Your task to perform on an android device: turn off smart reply in the gmail app Image 0: 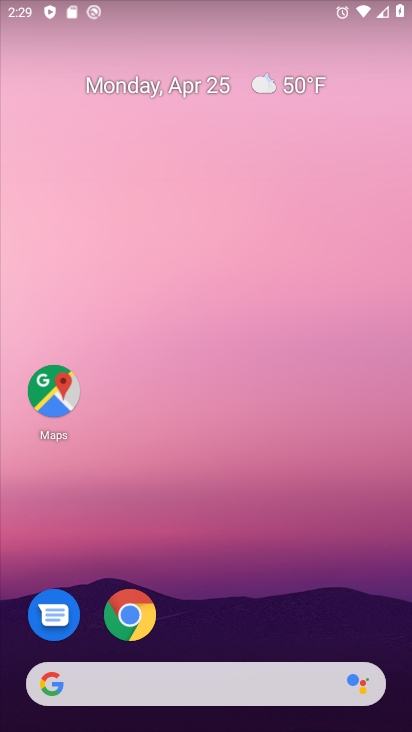
Step 0: drag from (219, 578) to (200, 42)
Your task to perform on an android device: turn off smart reply in the gmail app Image 1: 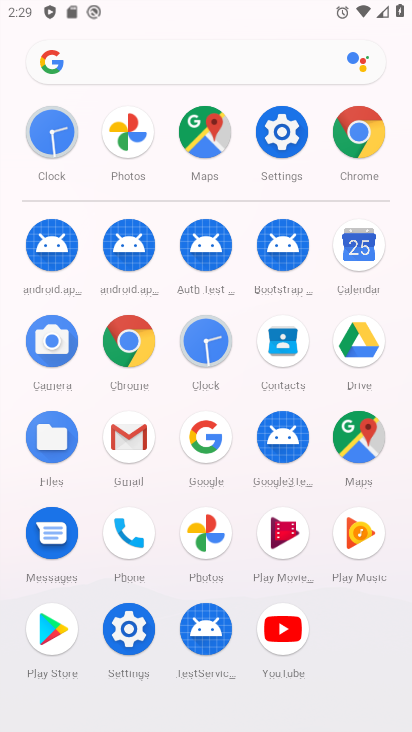
Step 1: click (126, 438)
Your task to perform on an android device: turn off smart reply in the gmail app Image 2: 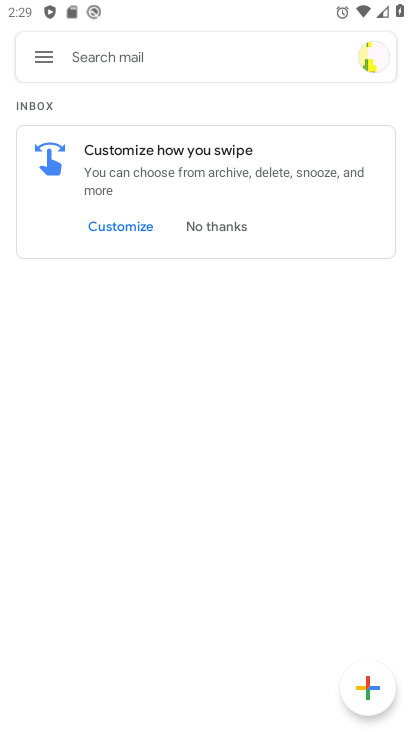
Step 2: click (44, 59)
Your task to perform on an android device: turn off smart reply in the gmail app Image 3: 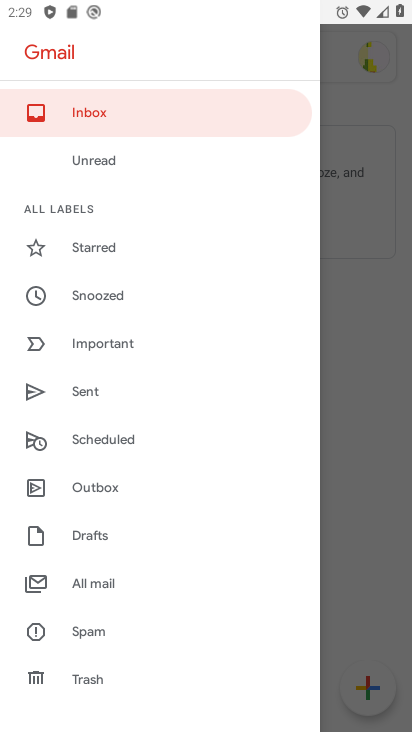
Step 3: drag from (144, 504) to (164, 421)
Your task to perform on an android device: turn off smart reply in the gmail app Image 4: 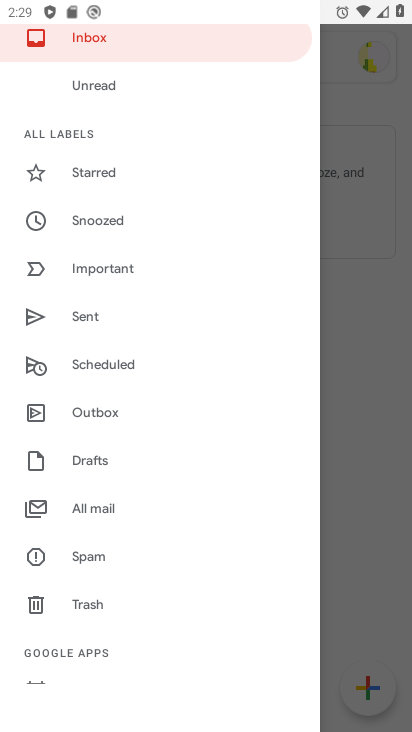
Step 4: drag from (127, 547) to (139, 457)
Your task to perform on an android device: turn off smart reply in the gmail app Image 5: 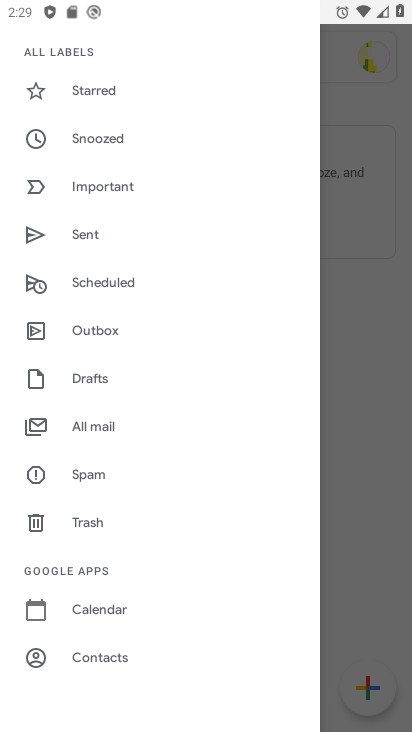
Step 5: drag from (128, 555) to (118, 414)
Your task to perform on an android device: turn off smart reply in the gmail app Image 6: 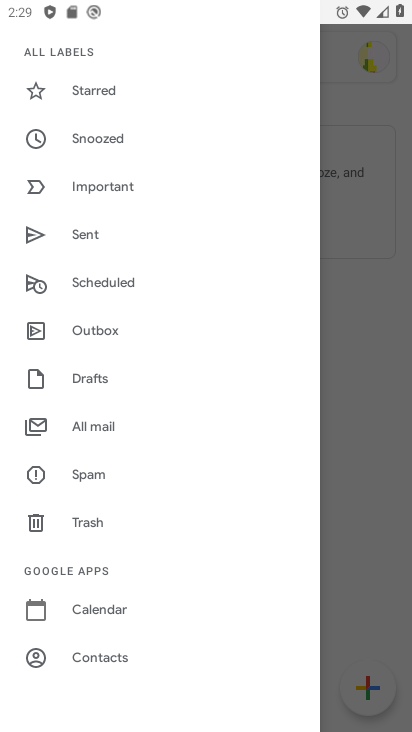
Step 6: drag from (137, 560) to (154, 412)
Your task to perform on an android device: turn off smart reply in the gmail app Image 7: 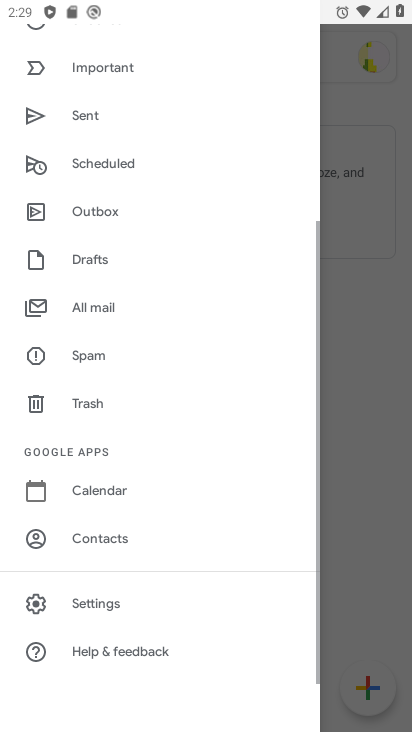
Step 7: click (98, 604)
Your task to perform on an android device: turn off smart reply in the gmail app Image 8: 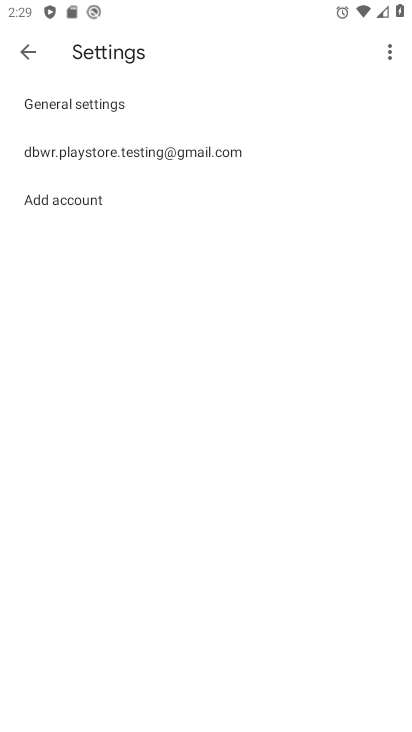
Step 8: click (97, 155)
Your task to perform on an android device: turn off smart reply in the gmail app Image 9: 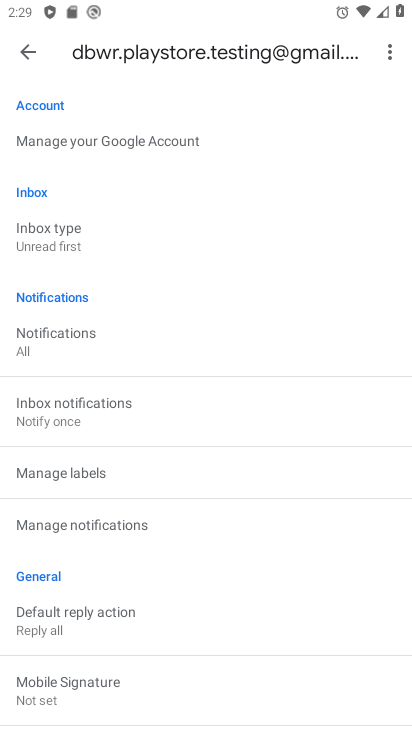
Step 9: click (192, 458)
Your task to perform on an android device: turn off smart reply in the gmail app Image 10: 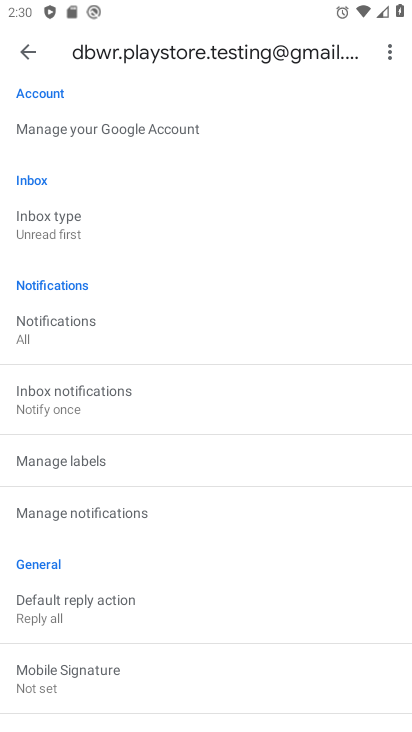
Step 10: drag from (113, 566) to (129, 335)
Your task to perform on an android device: turn off smart reply in the gmail app Image 11: 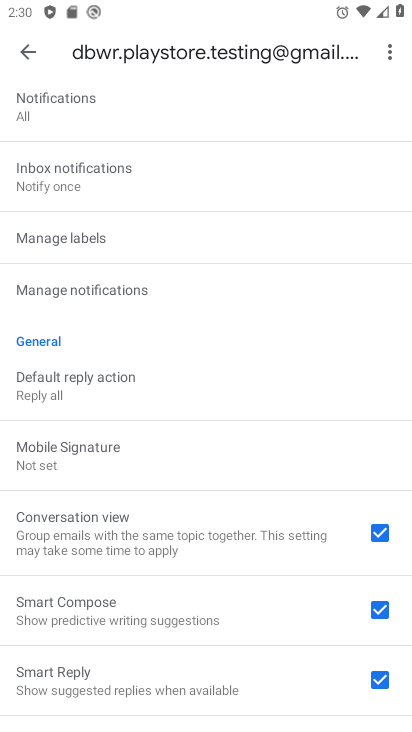
Step 11: click (379, 677)
Your task to perform on an android device: turn off smart reply in the gmail app Image 12: 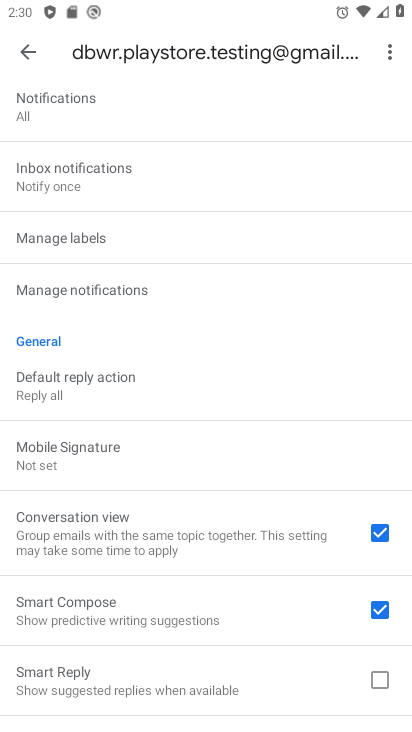
Step 12: task complete